Your task to perform on an android device: turn pop-ups on in chrome Image 0: 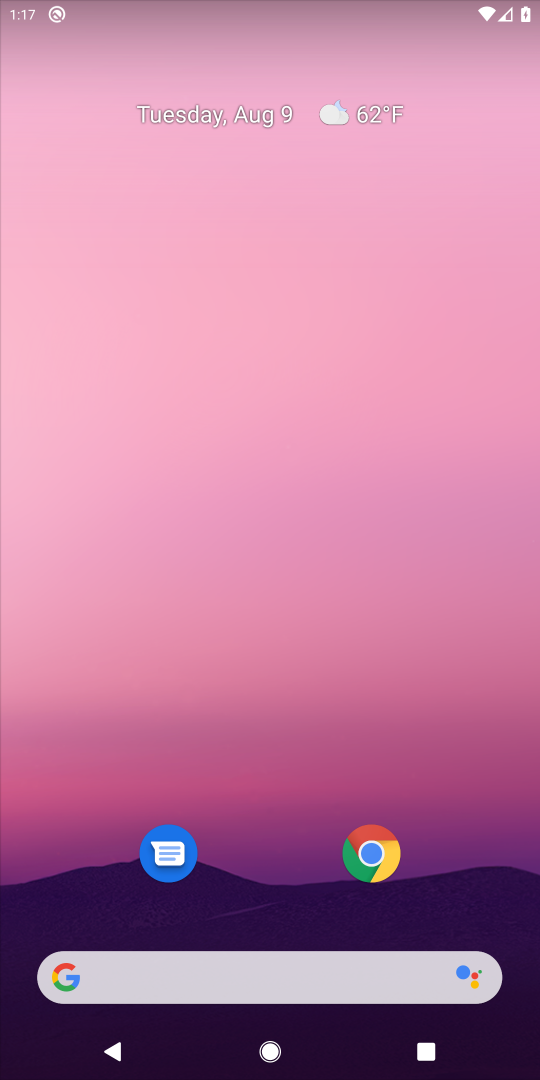
Step 0: press home button
Your task to perform on an android device: turn pop-ups on in chrome Image 1: 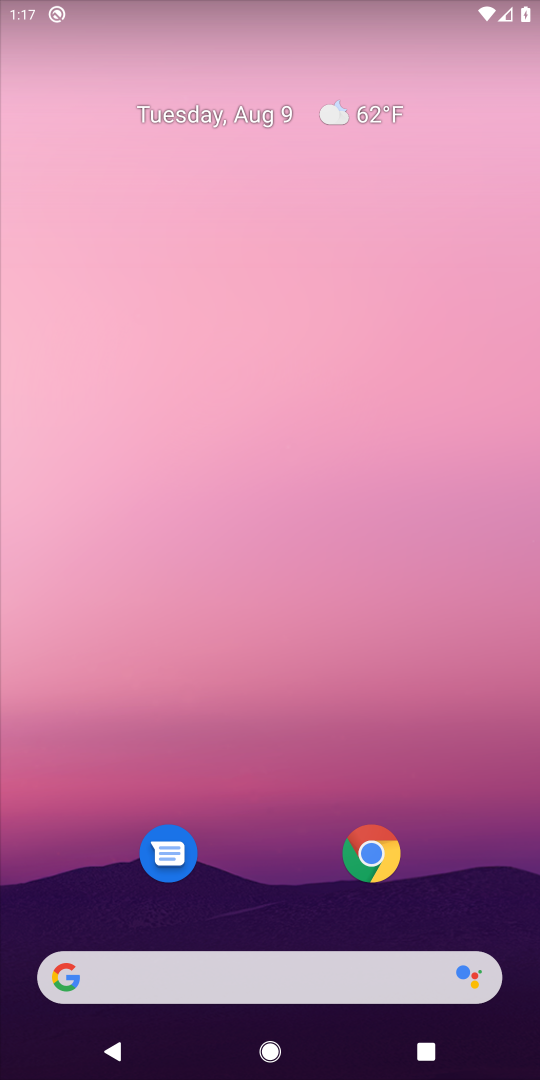
Step 1: click (351, 848)
Your task to perform on an android device: turn pop-ups on in chrome Image 2: 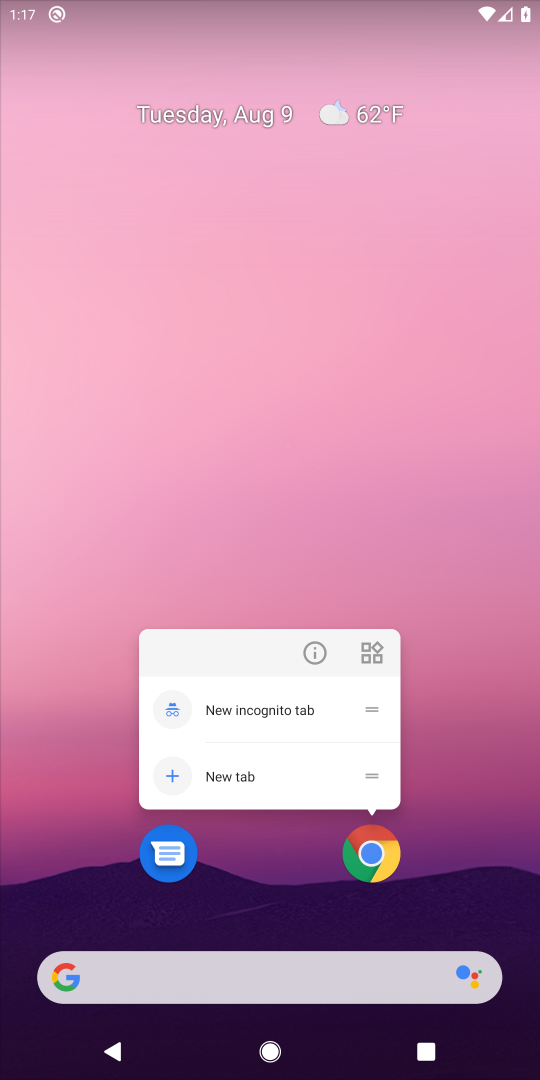
Step 2: click (366, 860)
Your task to perform on an android device: turn pop-ups on in chrome Image 3: 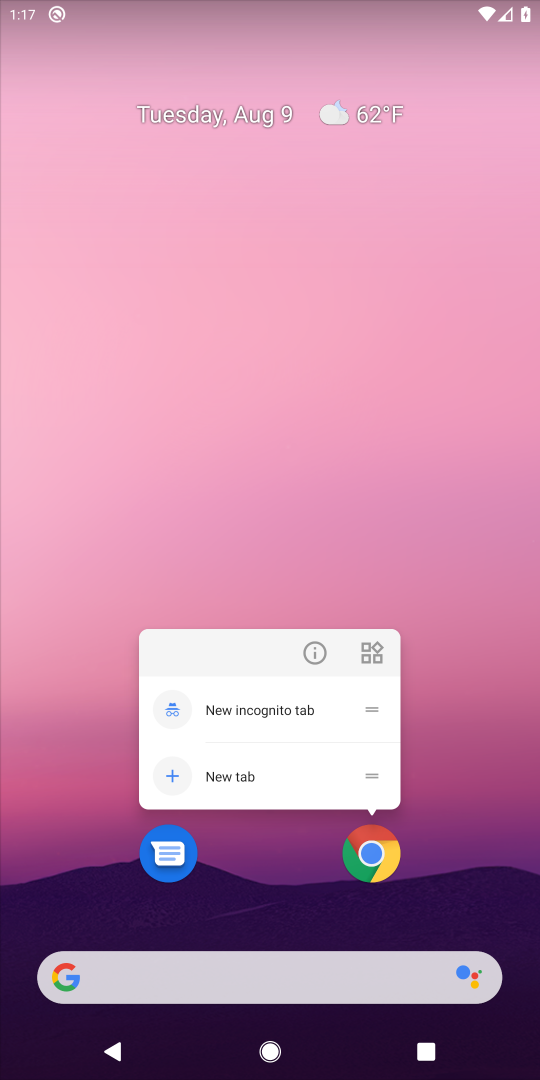
Step 3: click (364, 861)
Your task to perform on an android device: turn pop-ups on in chrome Image 4: 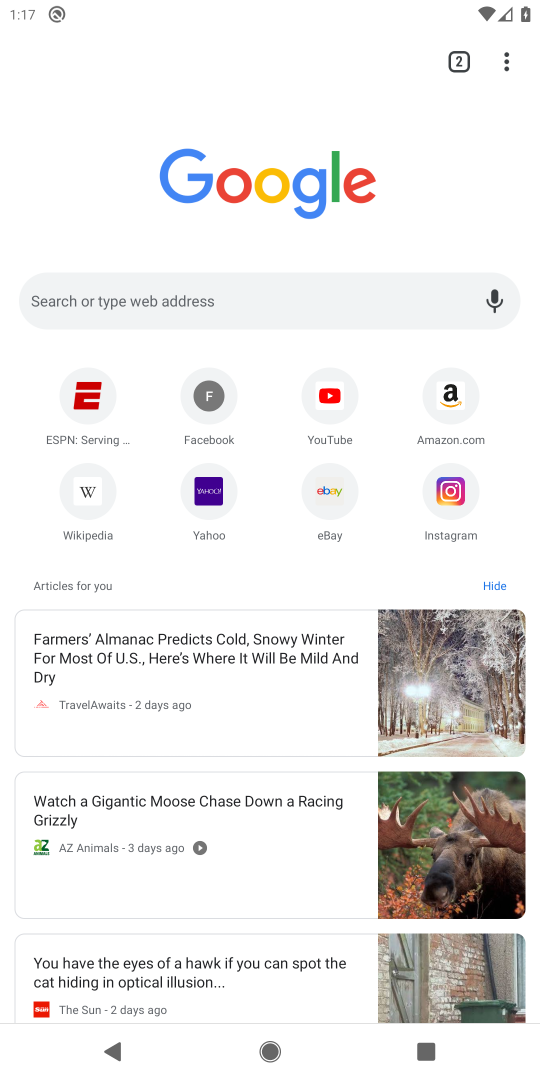
Step 4: drag from (502, 64) to (284, 578)
Your task to perform on an android device: turn pop-ups on in chrome Image 5: 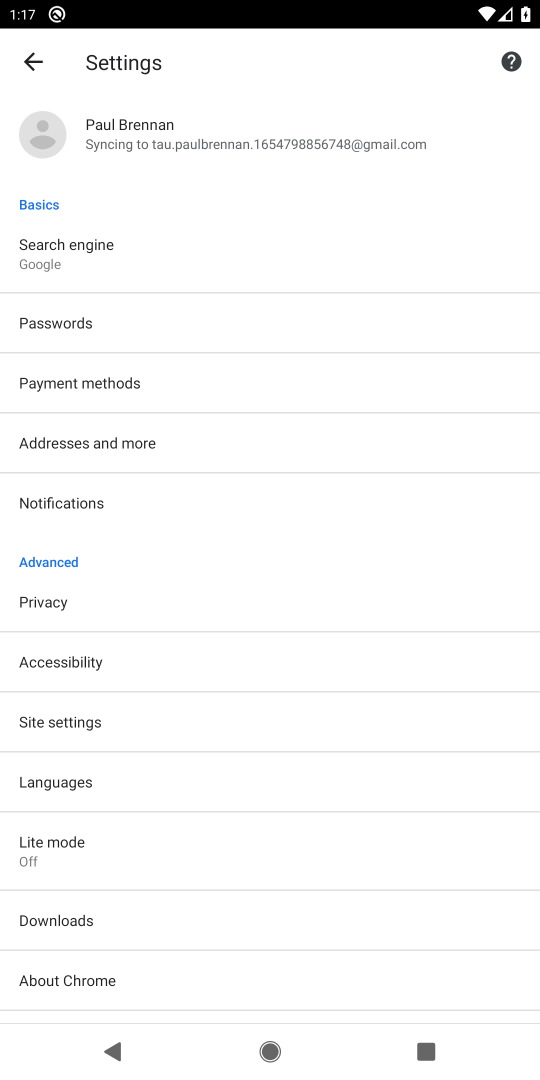
Step 5: drag from (129, 561) to (168, 162)
Your task to perform on an android device: turn pop-ups on in chrome Image 6: 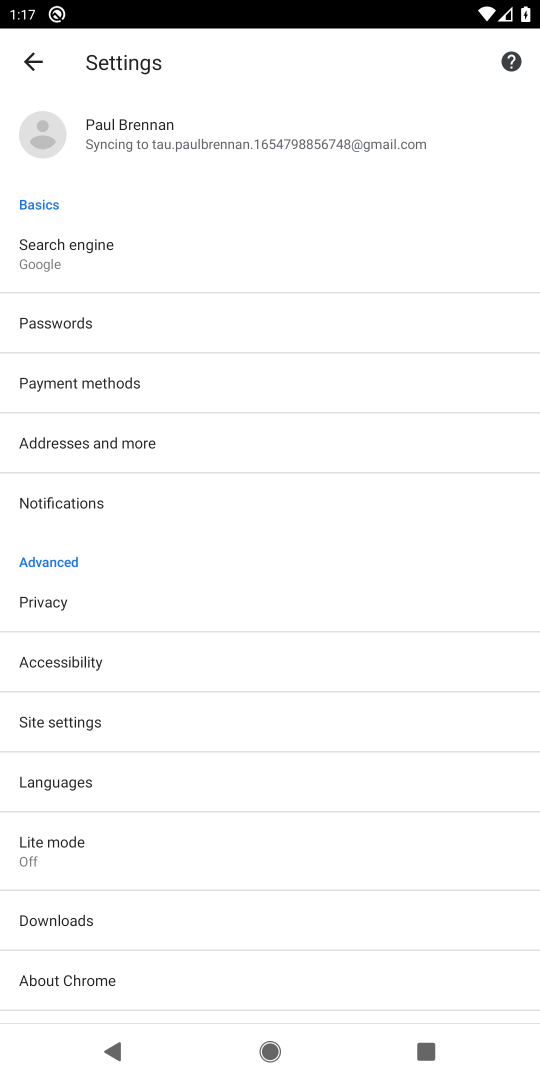
Step 6: click (42, 725)
Your task to perform on an android device: turn pop-ups on in chrome Image 7: 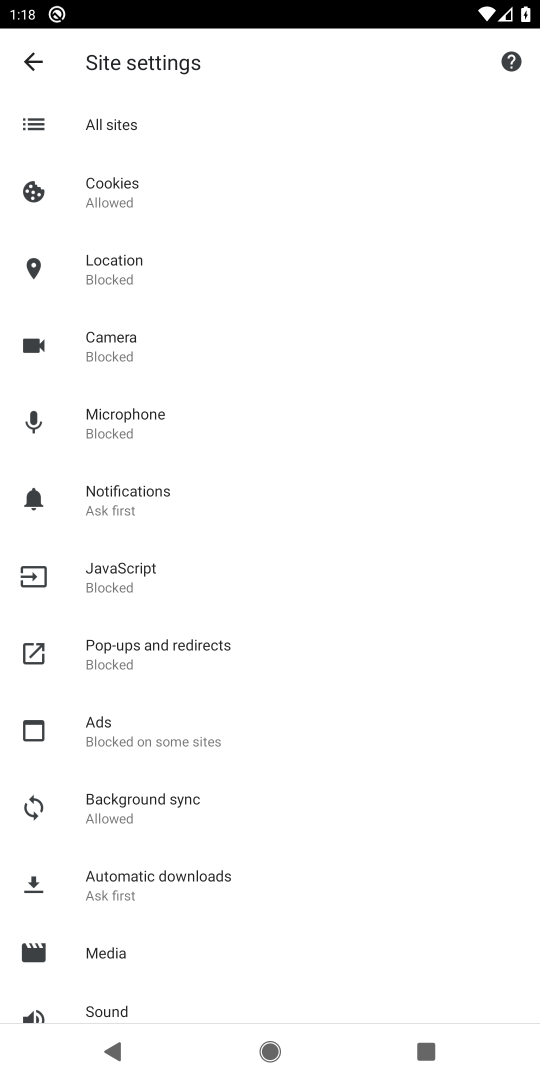
Step 7: click (185, 646)
Your task to perform on an android device: turn pop-ups on in chrome Image 8: 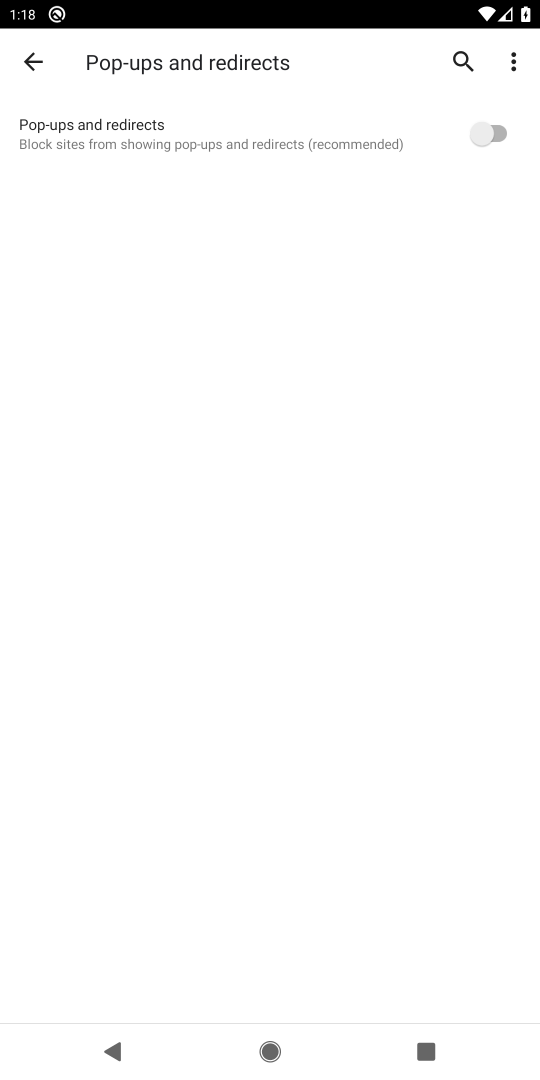
Step 8: click (496, 122)
Your task to perform on an android device: turn pop-ups on in chrome Image 9: 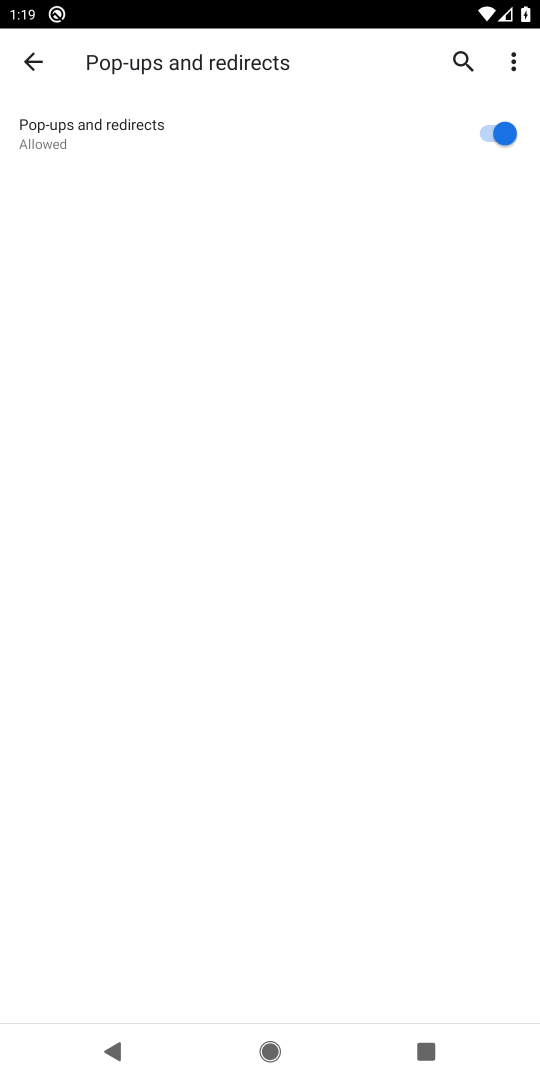
Step 9: task complete